Your task to perform on an android device: turn smart compose on in the gmail app Image 0: 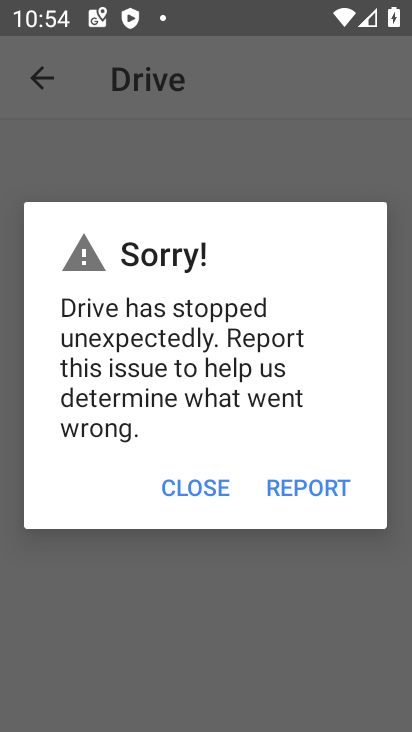
Step 0: press home button
Your task to perform on an android device: turn smart compose on in the gmail app Image 1: 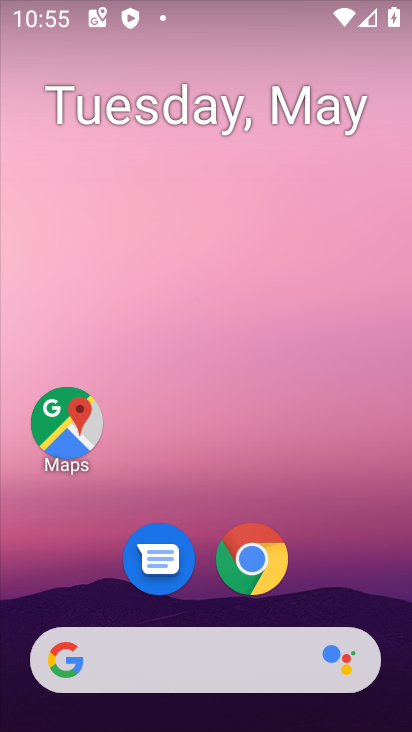
Step 1: drag from (329, 577) to (306, 35)
Your task to perform on an android device: turn smart compose on in the gmail app Image 2: 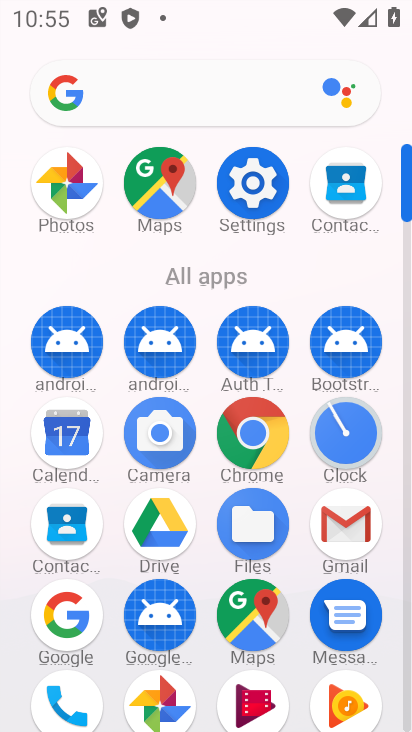
Step 2: click (338, 520)
Your task to perform on an android device: turn smart compose on in the gmail app Image 3: 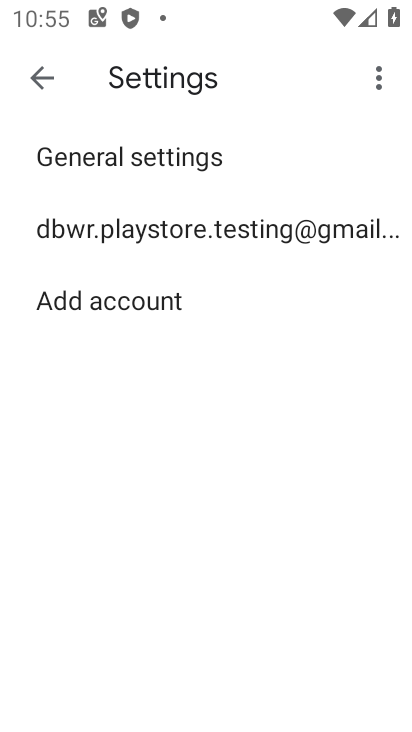
Step 3: click (46, 81)
Your task to perform on an android device: turn smart compose on in the gmail app Image 4: 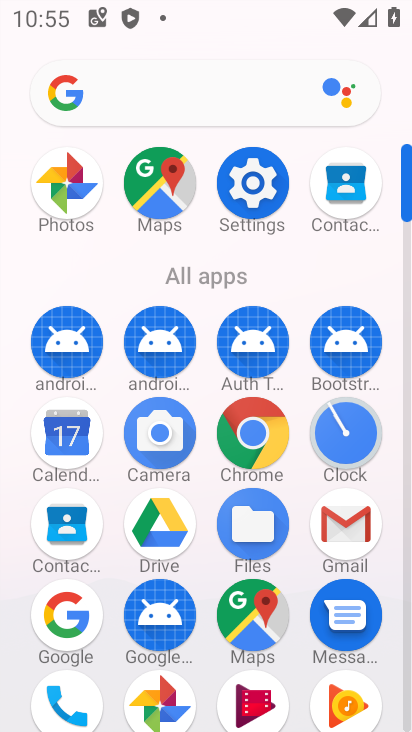
Step 4: click (333, 536)
Your task to perform on an android device: turn smart compose on in the gmail app Image 5: 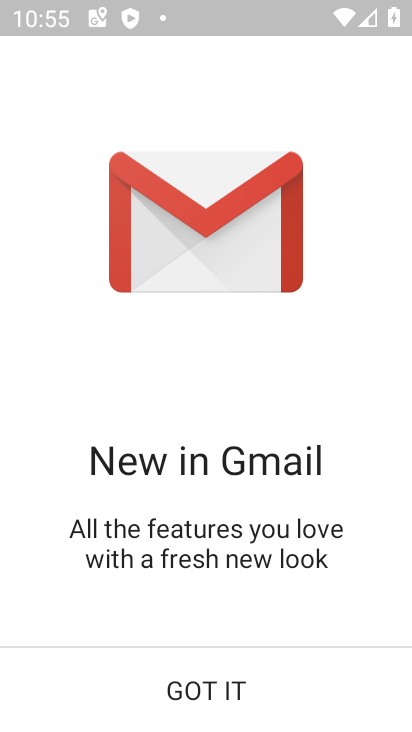
Step 5: click (239, 691)
Your task to perform on an android device: turn smart compose on in the gmail app Image 6: 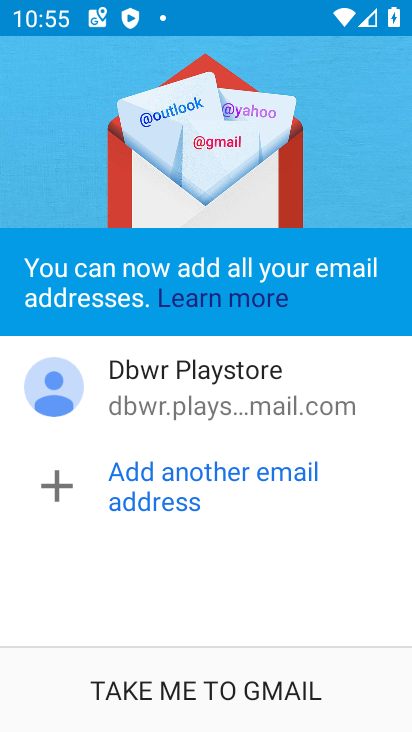
Step 6: click (259, 677)
Your task to perform on an android device: turn smart compose on in the gmail app Image 7: 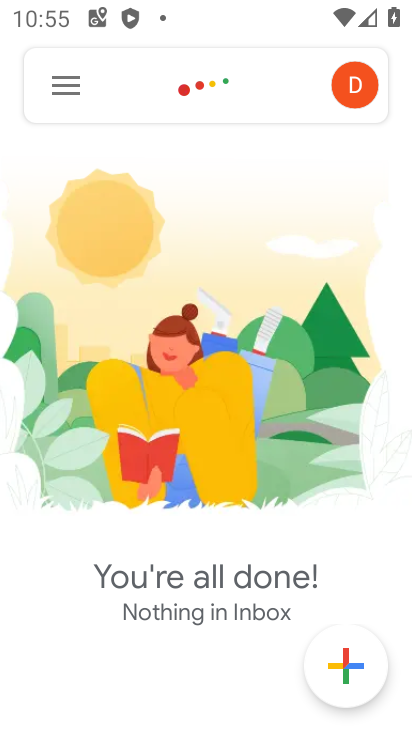
Step 7: click (73, 89)
Your task to perform on an android device: turn smart compose on in the gmail app Image 8: 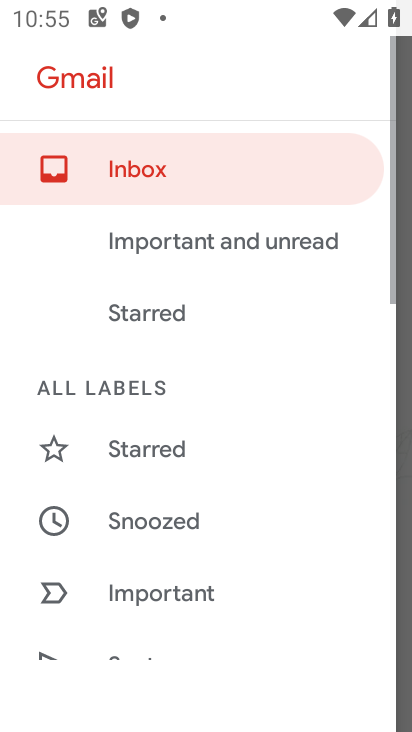
Step 8: drag from (147, 583) to (152, 150)
Your task to perform on an android device: turn smart compose on in the gmail app Image 9: 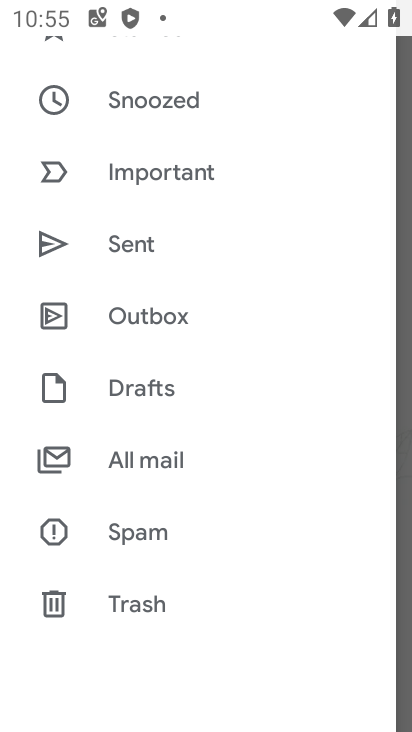
Step 9: drag from (143, 629) to (132, 206)
Your task to perform on an android device: turn smart compose on in the gmail app Image 10: 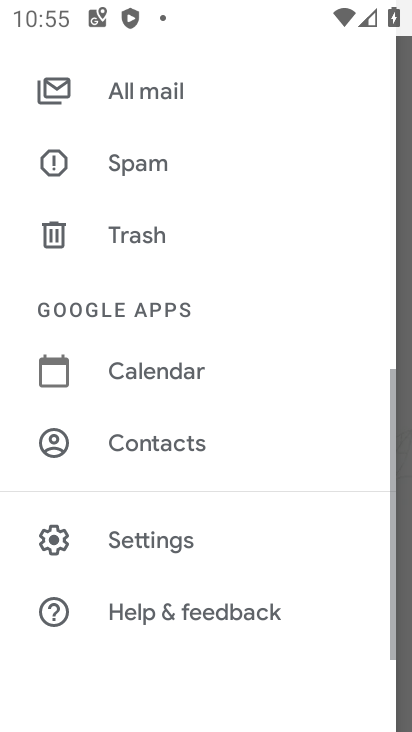
Step 10: click (163, 531)
Your task to perform on an android device: turn smart compose on in the gmail app Image 11: 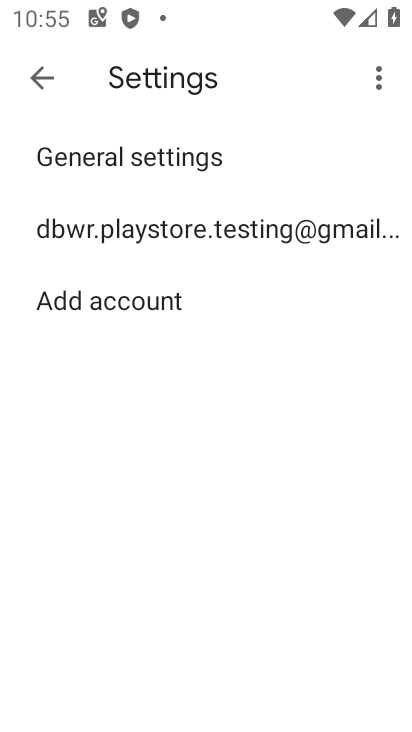
Step 11: click (154, 243)
Your task to perform on an android device: turn smart compose on in the gmail app Image 12: 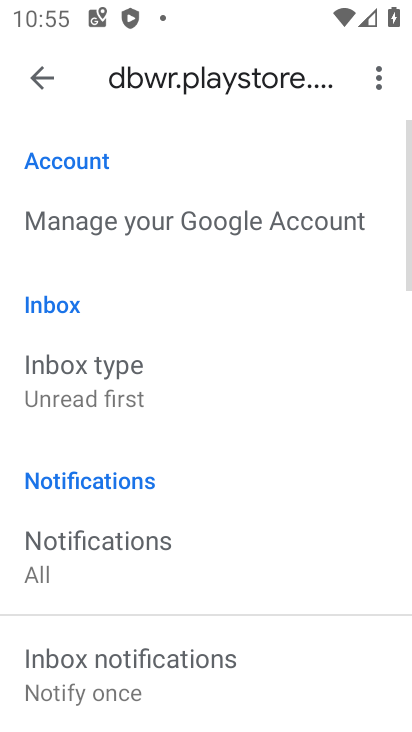
Step 12: task complete